Your task to perform on an android device: stop showing notifications on the lock screen Image 0: 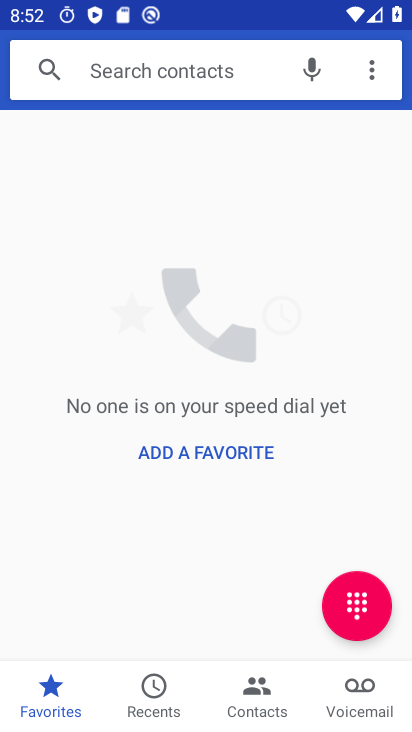
Step 0: press back button
Your task to perform on an android device: stop showing notifications on the lock screen Image 1: 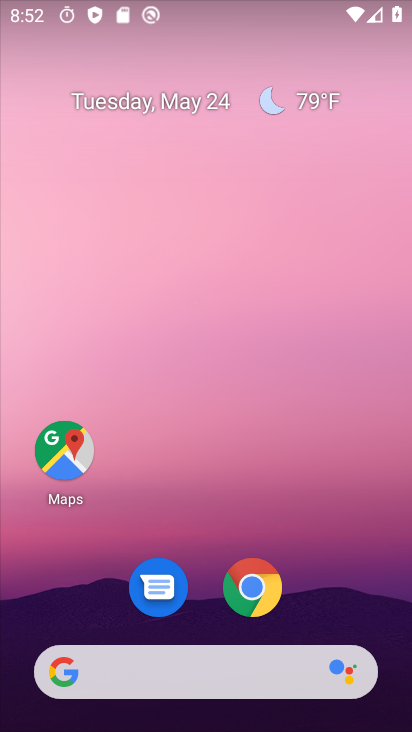
Step 1: drag from (323, 604) to (268, 195)
Your task to perform on an android device: stop showing notifications on the lock screen Image 2: 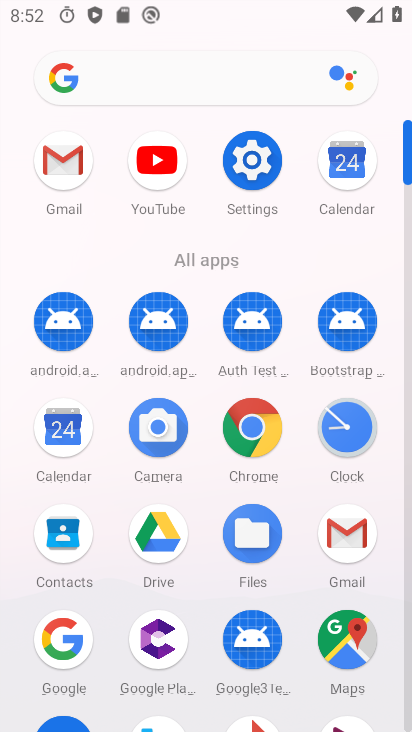
Step 2: click (254, 161)
Your task to perform on an android device: stop showing notifications on the lock screen Image 3: 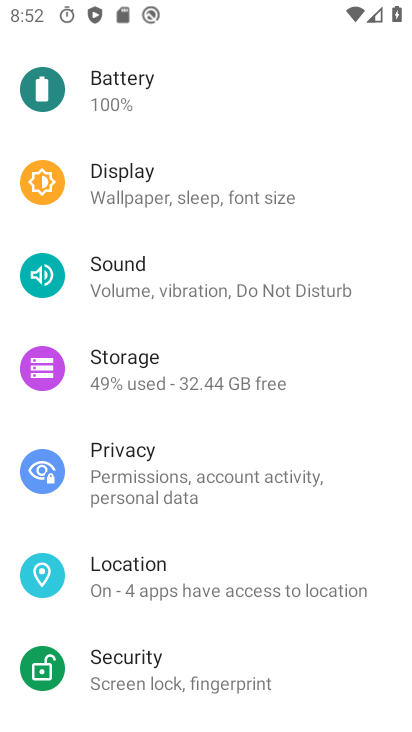
Step 3: drag from (167, 246) to (170, 351)
Your task to perform on an android device: stop showing notifications on the lock screen Image 4: 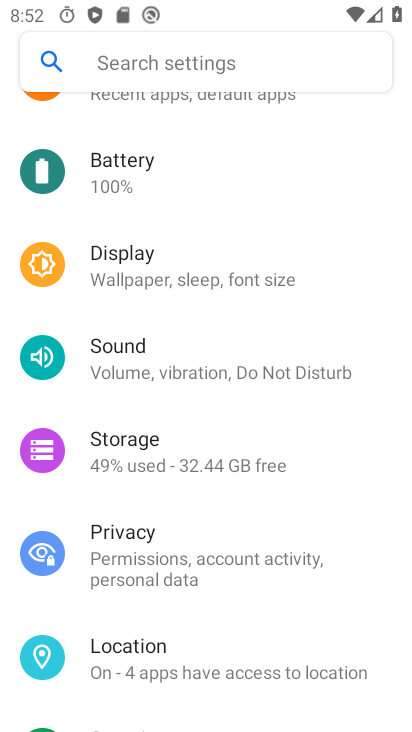
Step 4: drag from (193, 241) to (207, 346)
Your task to perform on an android device: stop showing notifications on the lock screen Image 5: 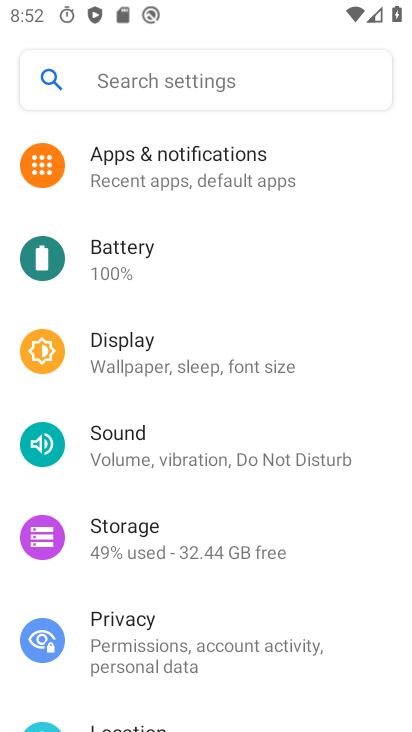
Step 5: drag from (207, 259) to (199, 378)
Your task to perform on an android device: stop showing notifications on the lock screen Image 6: 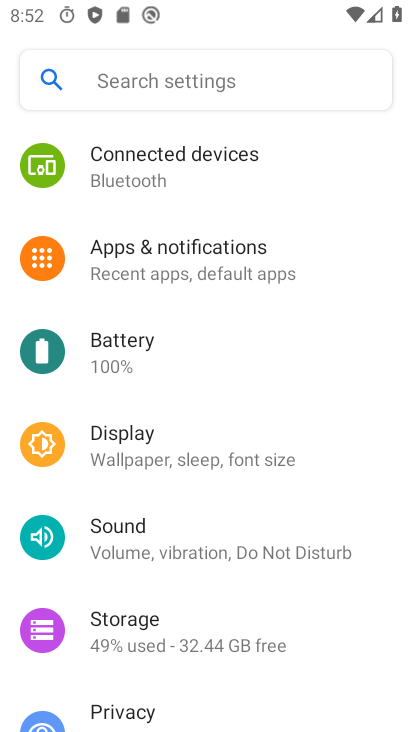
Step 6: click (228, 271)
Your task to perform on an android device: stop showing notifications on the lock screen Image 7: 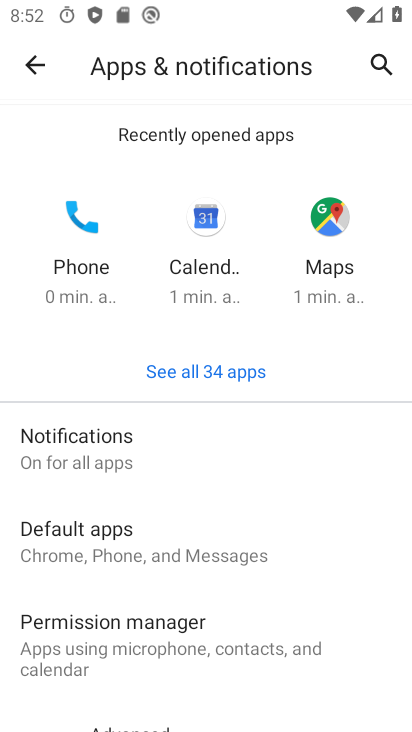
Step 7: click (87, 450)
Your task to perform on an android device: stop showing notifications on the lock screen Image 8: 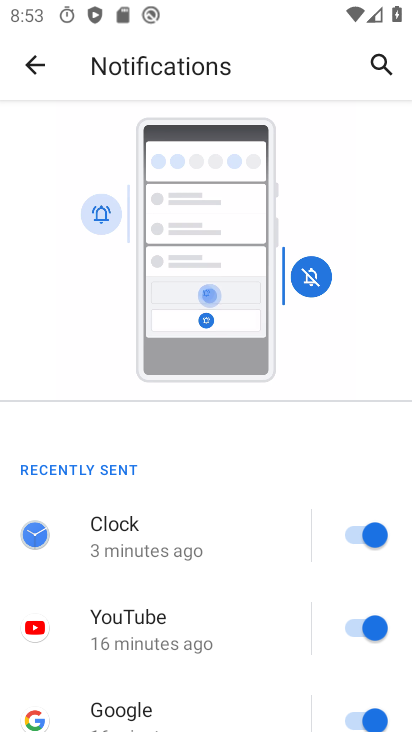
Step 8: drag from (173, 443) to (228, 294)
Your task to perform on an android device: stop showing notifications on the lock screen Image 9: 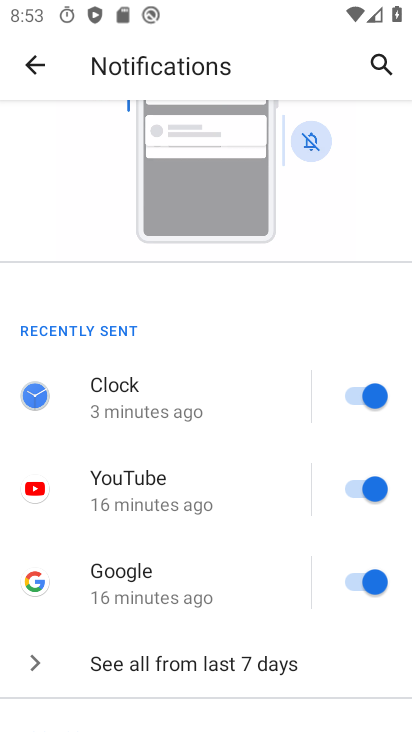
Step 9: drag from (140, 442) to (223, 327)
Your task to perform on an android device: stop showing notifications on the lock screen Image 10: 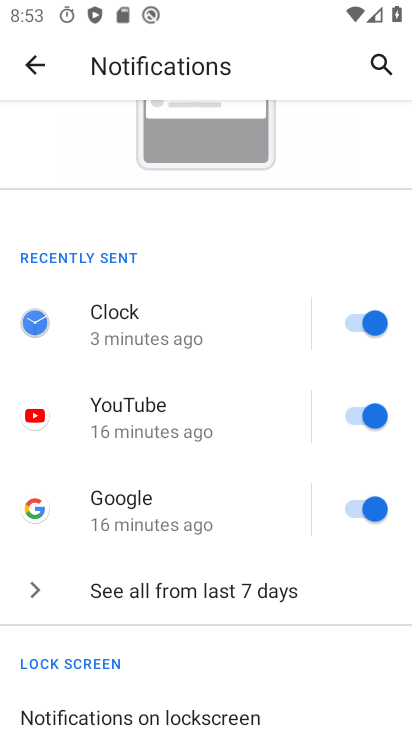
Step 10: drag from (150, 453) to (244, 318)
Your task to perform on an android device: stop showing notifications on the lock screen Image 11: 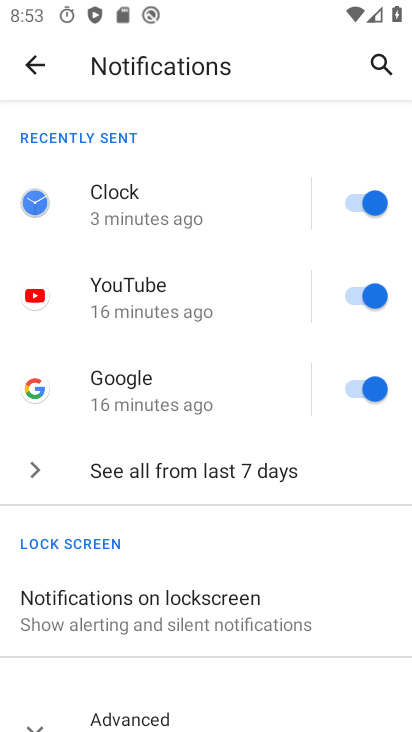
Step 11: drag from (152, 543) to (253, 380)
Your task to perform on an android device: stop showing notifications on the lock screen Image 12: 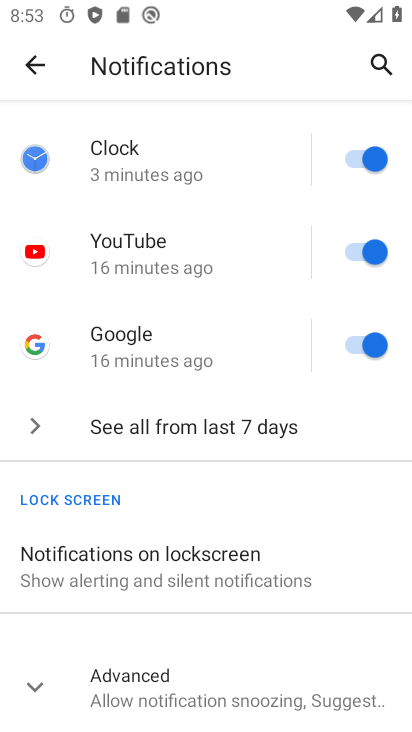
Step 12: click (148, 561)
Your task to perform on an android device: stop showing notifications on the lock screen Image 13: 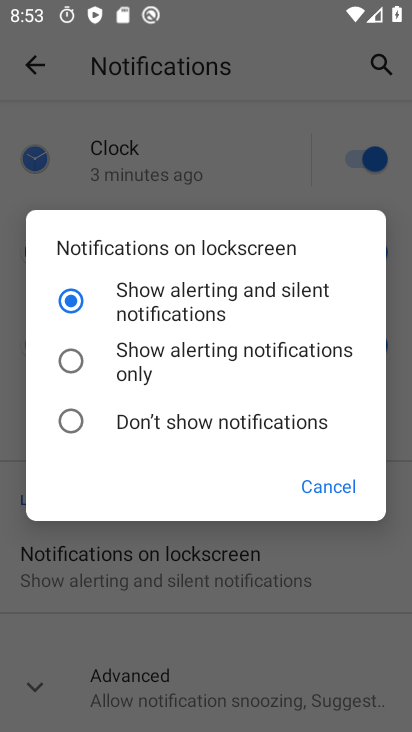
Step 13: click (73, 417)
Your task to perform on an android device: stop showing notifications on the lock screen Image 14: 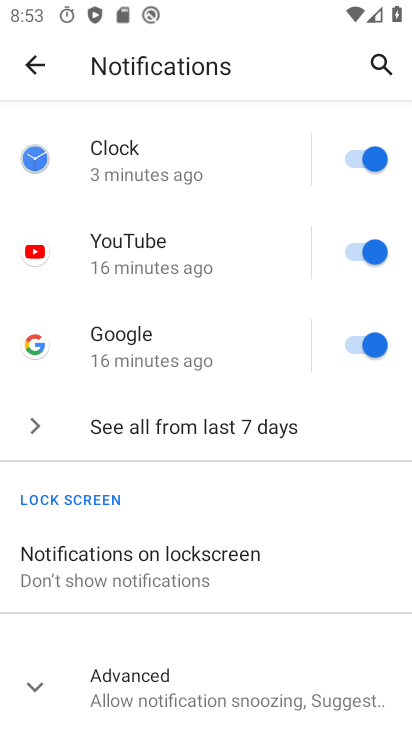
Step 14: task complete